Your task to perform on an android device: Go to internet settings Image 0: 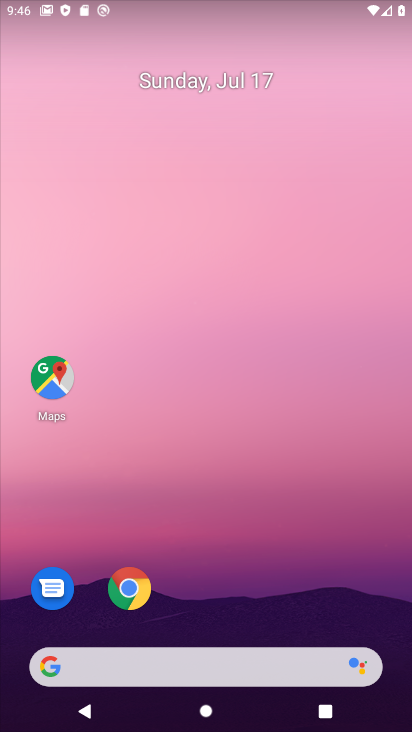
Step 0: drag from (245, 631) to (330, 105)
Your task to perform on an android device: Go to internet settings Image 1: 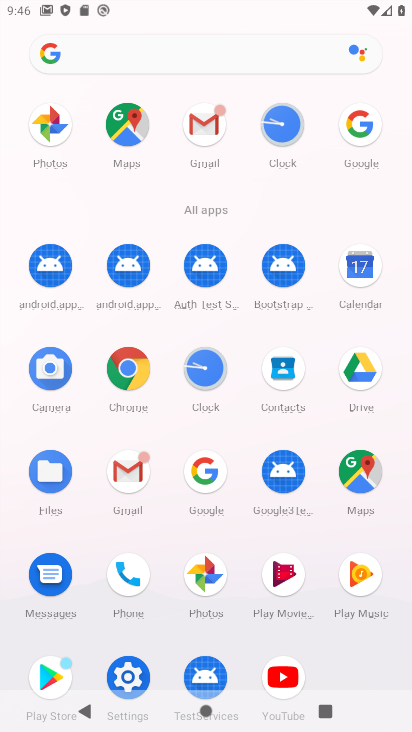
Step 1: click (115, 674)
Your task to perform on an android device: Go to internet settings Image 2: 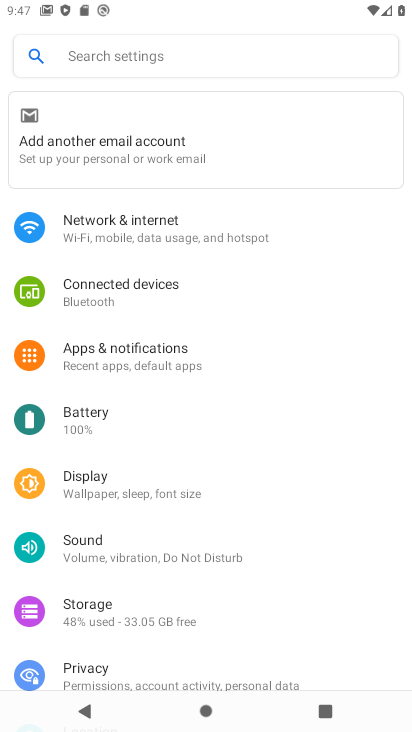
Step 2: click (176, 237)
Your task to perform on an android device: Go to internet settings Image 3: 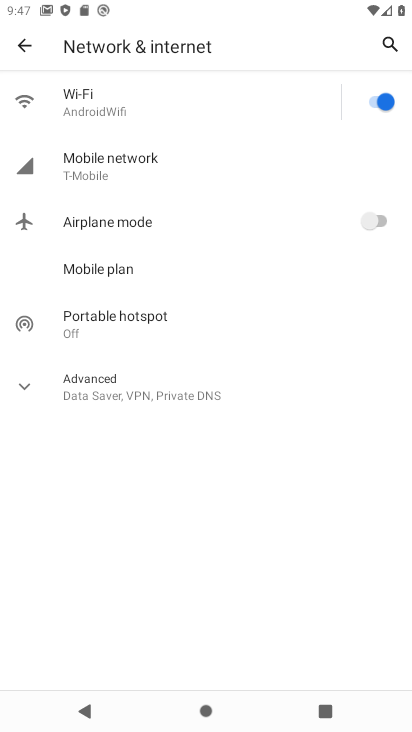
Step 3: click (155, 173)
Your task to perform on an android device: Go to internet settings Image 4: 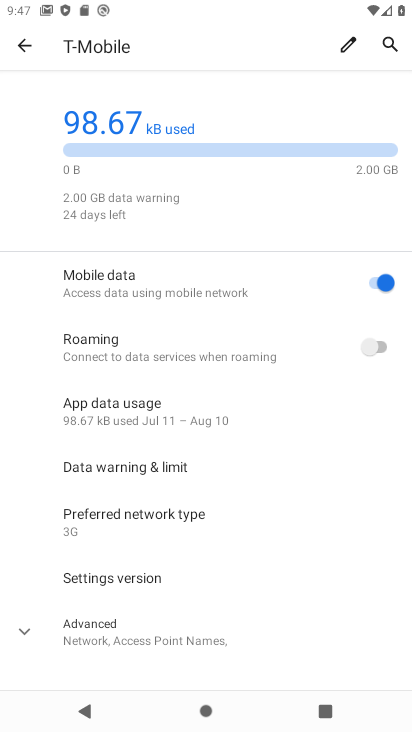
Step 4: task complete